Your task to perform on an android device: allow notifications from all sites in the chrome app Image 0: 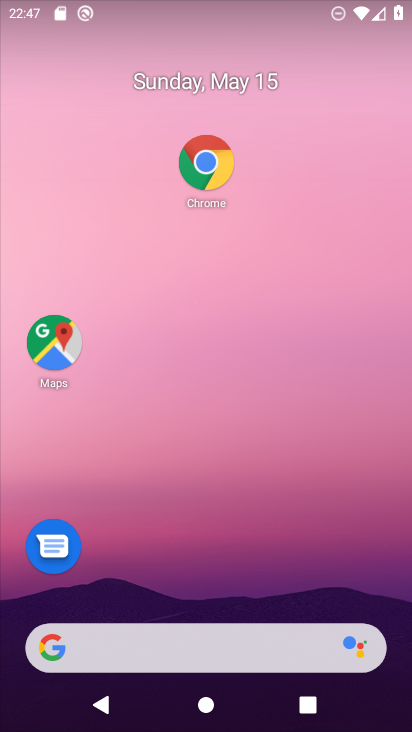
Step 0: drag from (251, 458) to (265, 184)
Your task to perform on an android device: allow notifications from all sites in the chrome app Image 1: 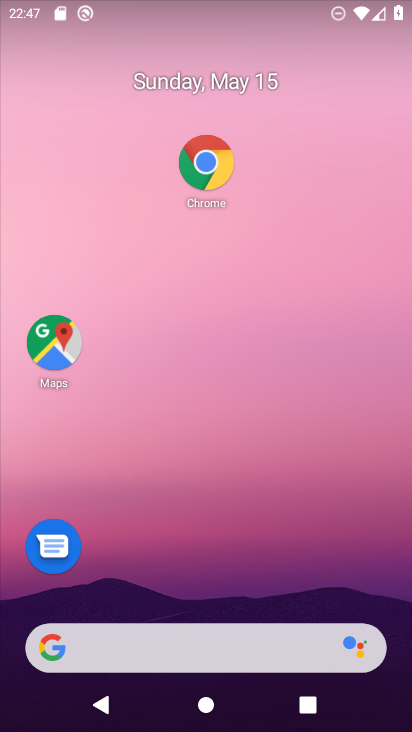
Step 1: drag from (265, 567) to (326, 167)
Your task to perform on an android device: allow notifications from all sites in the chrome app Image 2: 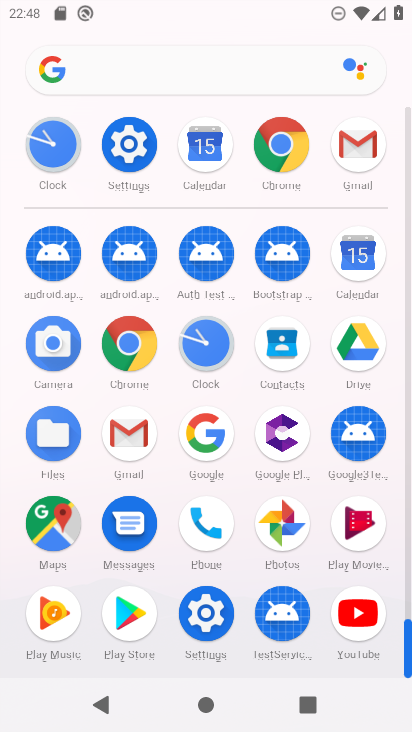
Step 2: click (268, 132)
Your task to perform on an android device: allow notifications from all sites in the chrome app Image 3: 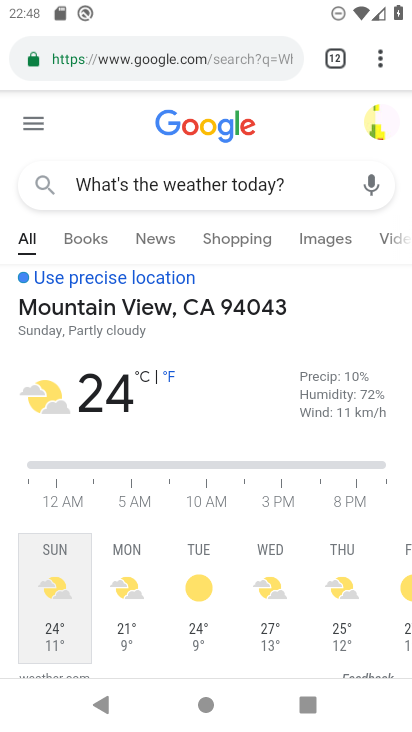
Step 3: click (373, 51)
Your task to perform on an android device: allow notifications from all sites in the chrome app Image 4: 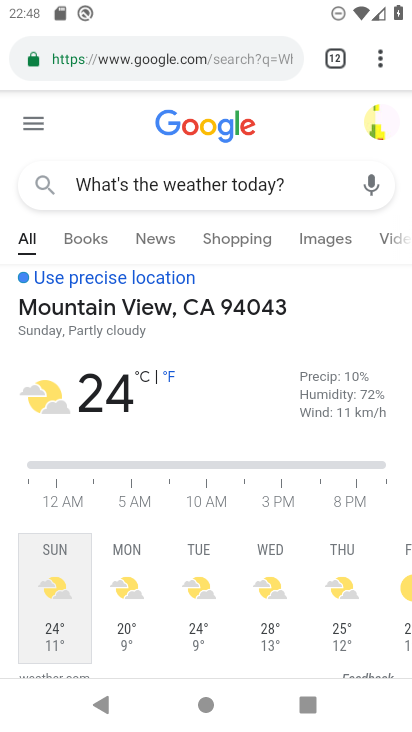
Step 4: click (394, 48)
Your task to perform on an android device: allow notifications from all sites in the chrome app Image 5: 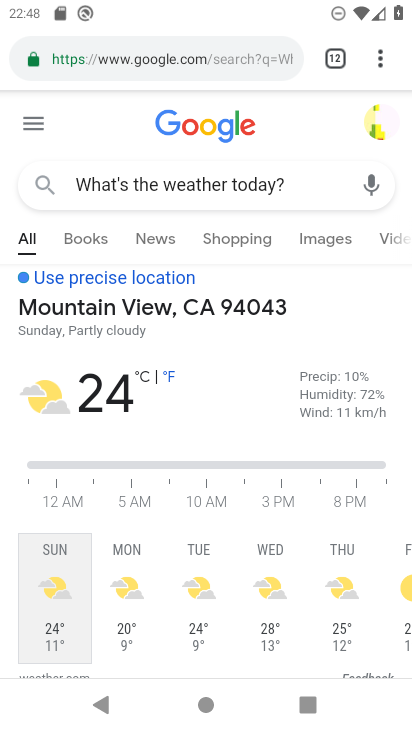
Step 5: click (370, 60)
Your task to perform on an android device: allow notifications from all sites in the chrome app Image 6: 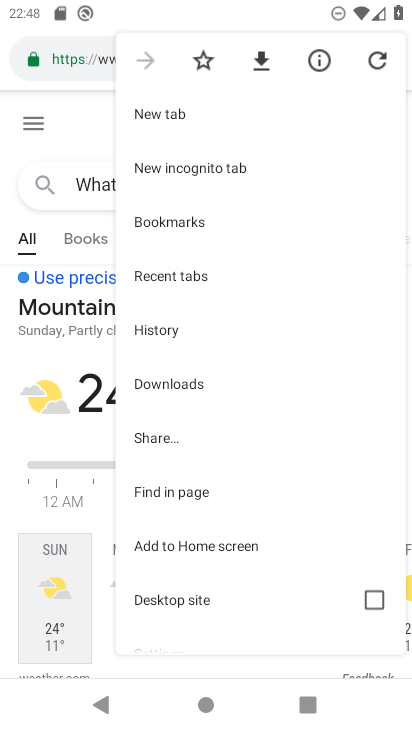
Step 6: click (182, 111)
Your task to perform on an android device: allow notifications from all sites in the chrome app Image 7: 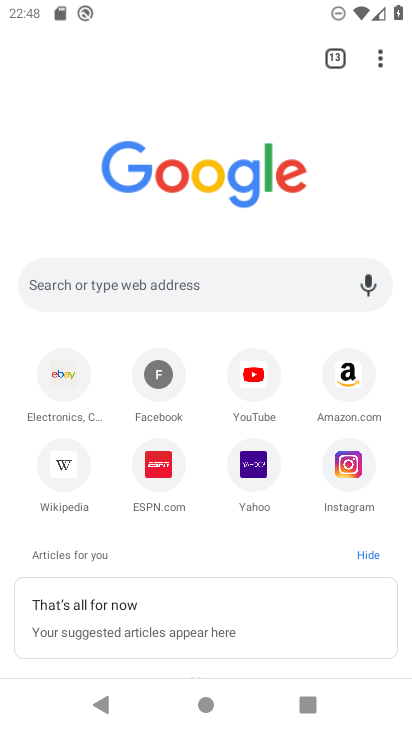
Step 7: click (370, 48)
Your task to perform on an android device: allow notifications from all sites in the chrome app Image 8: 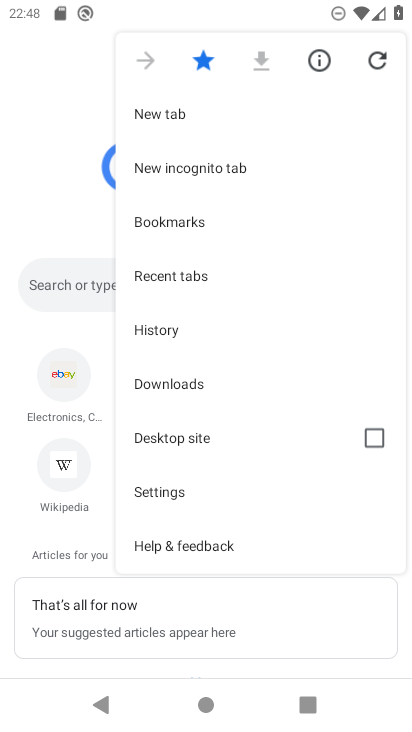
Step 8: click (185, 477)
Your task to perform on an android device: allow notifications from all sites in the chrome app Image 9: 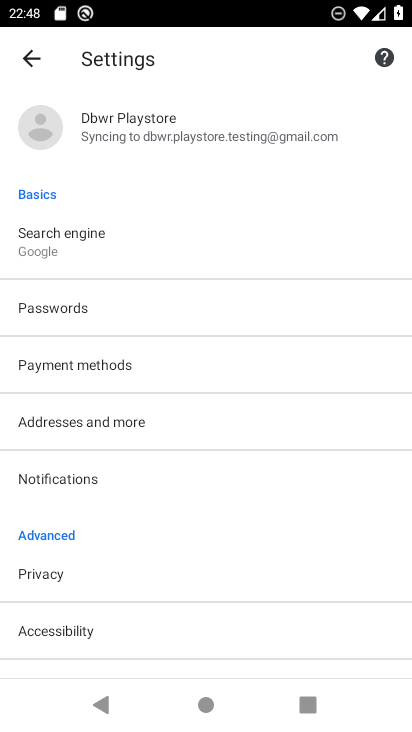
Step 9: click (91, 483)
Your task to perform on an android device: allow notifications from all sites in the chrome app Image 10: 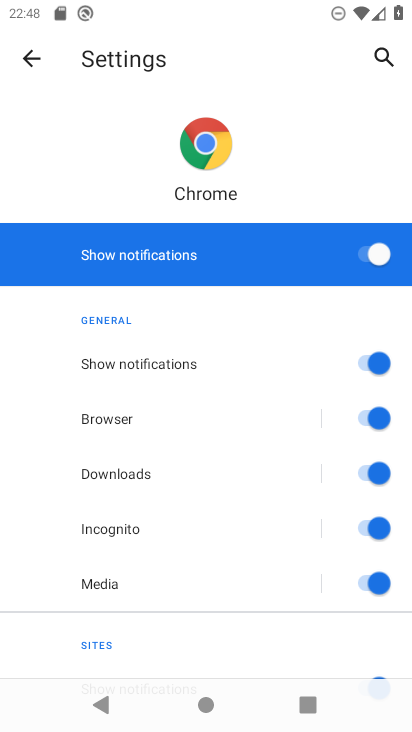
Step 10: drag from (163, 658) to (190, 482)
Your task to perform on an android device: allow notifications from all sites in the chrome app Image 11: 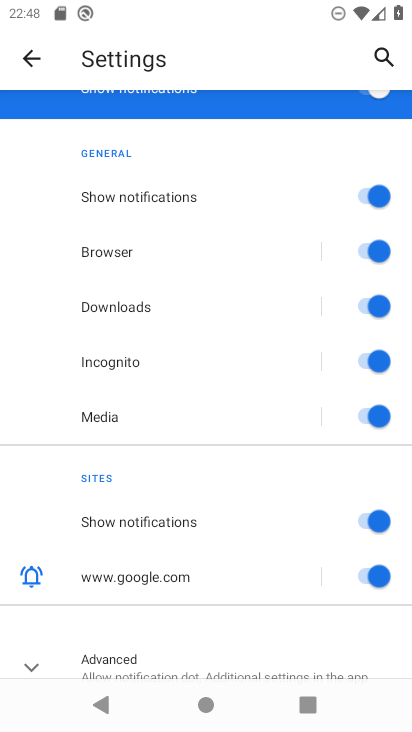
Step 11: click (27, 49)
Your task to perform on an android device: allow notifications from all sites in the chrome app Image 12: 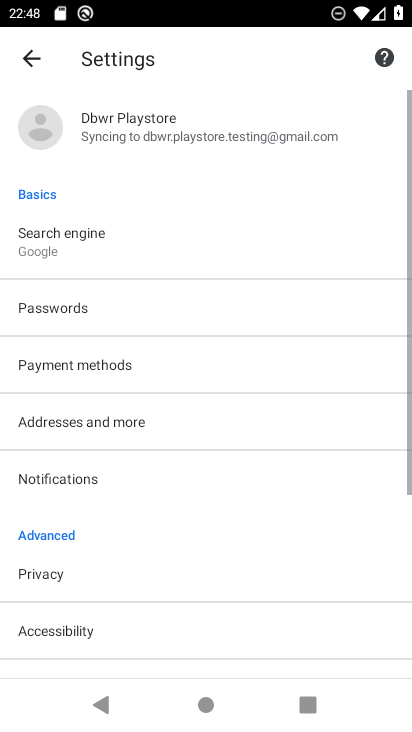
Step 12: drag from (123, 563) to (287, 161)
Your task to perform on an android device: allow notifications from all sites in the chrome app Image 13: 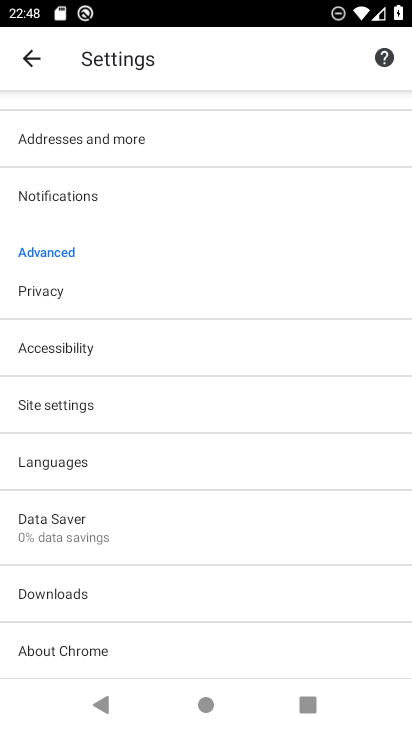
Step 13: click (109, 409)
Your task to perform on an android device: allow notifications from all sites in the chrome app Image 14: 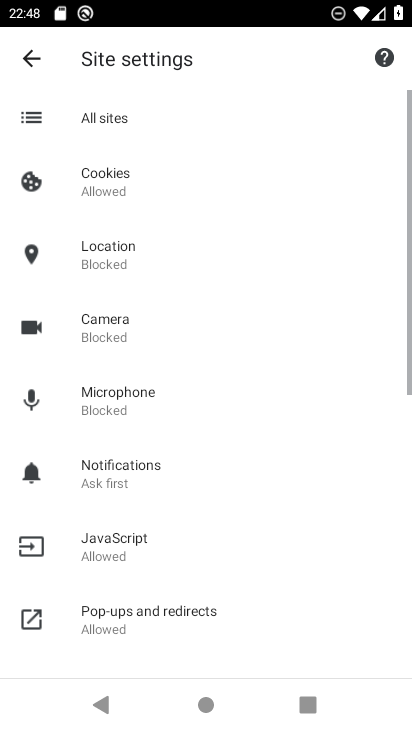
Step 14: click (153, 164)
Your task to perform on an android device: allow notifications from all sites in the chrome app Image 15: 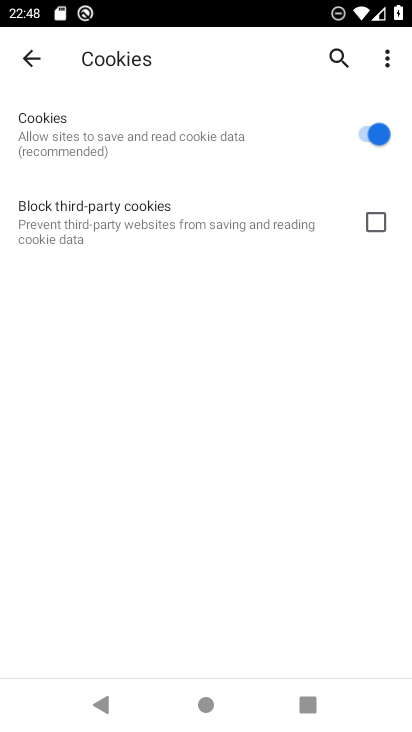
Step 15: click (27, 64)
Your task to perform on an android device: allow notifications from all sites in the chrome app Image 16: 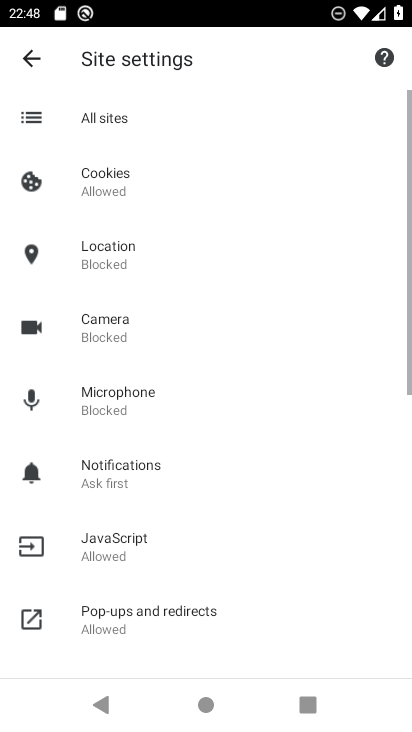
Step 16: click (111, 268)
Your task to perform on an android device: allow notifications from all sites in the chrome app Image 17: 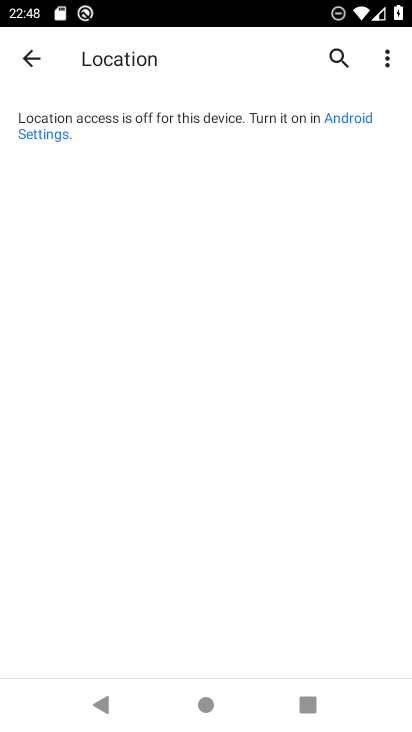
Step 17: click (42, 61)
Your task to perform on an android device: allow notifications from all sites in the chrome app Image 18: 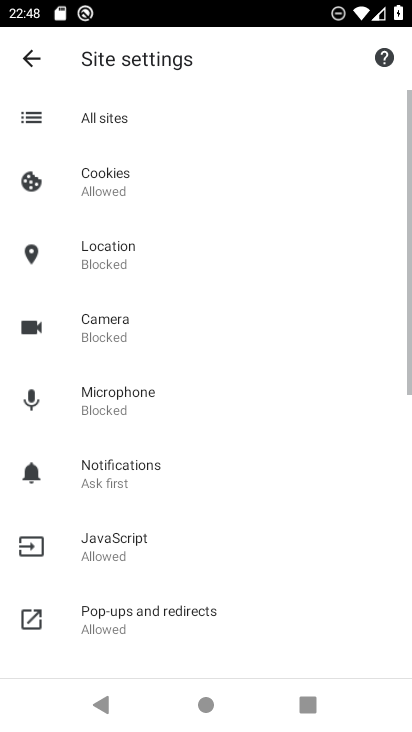
Step 18: click (111, 395)
Your task to perform on an android device: allow notifications from all sites in the chrome app Image 19: 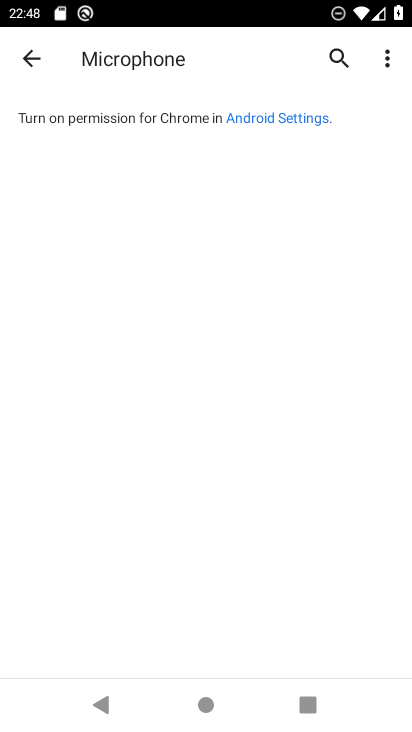
Step 19: click (15, 82)
Your task to perform on an android device: allow notifications from all sites in the chrome app Image 20: 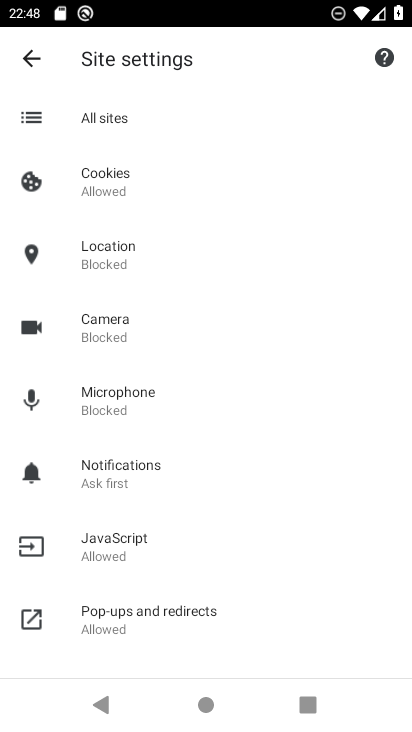
Step 20: click (145, 554)
Your task to perform on an android device: allow notifications from all sites in the chrome app Image 21: 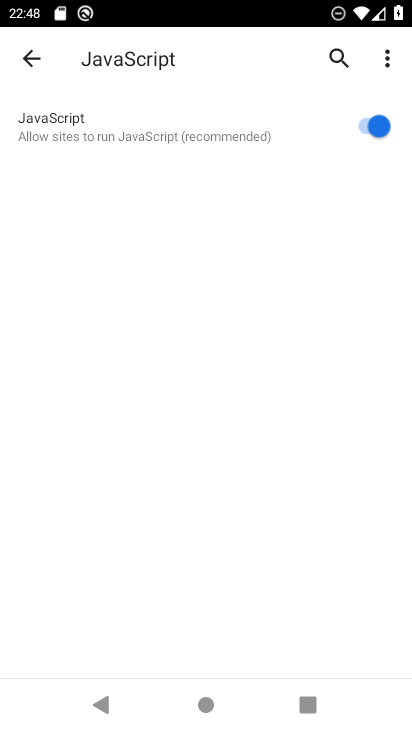
Step 21: click (39, 68)
Your task to perform on an android device: allow notifications from all sites in the chrome app Image 22: 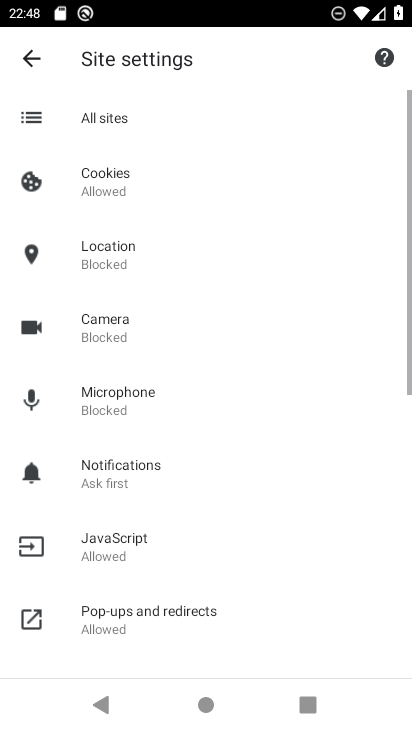
Step 22: task complete